Your task to perform on an android device: Search for "dell alienware" on walmart, select the first entry, add it to the cart, then select checkout. Image 0: 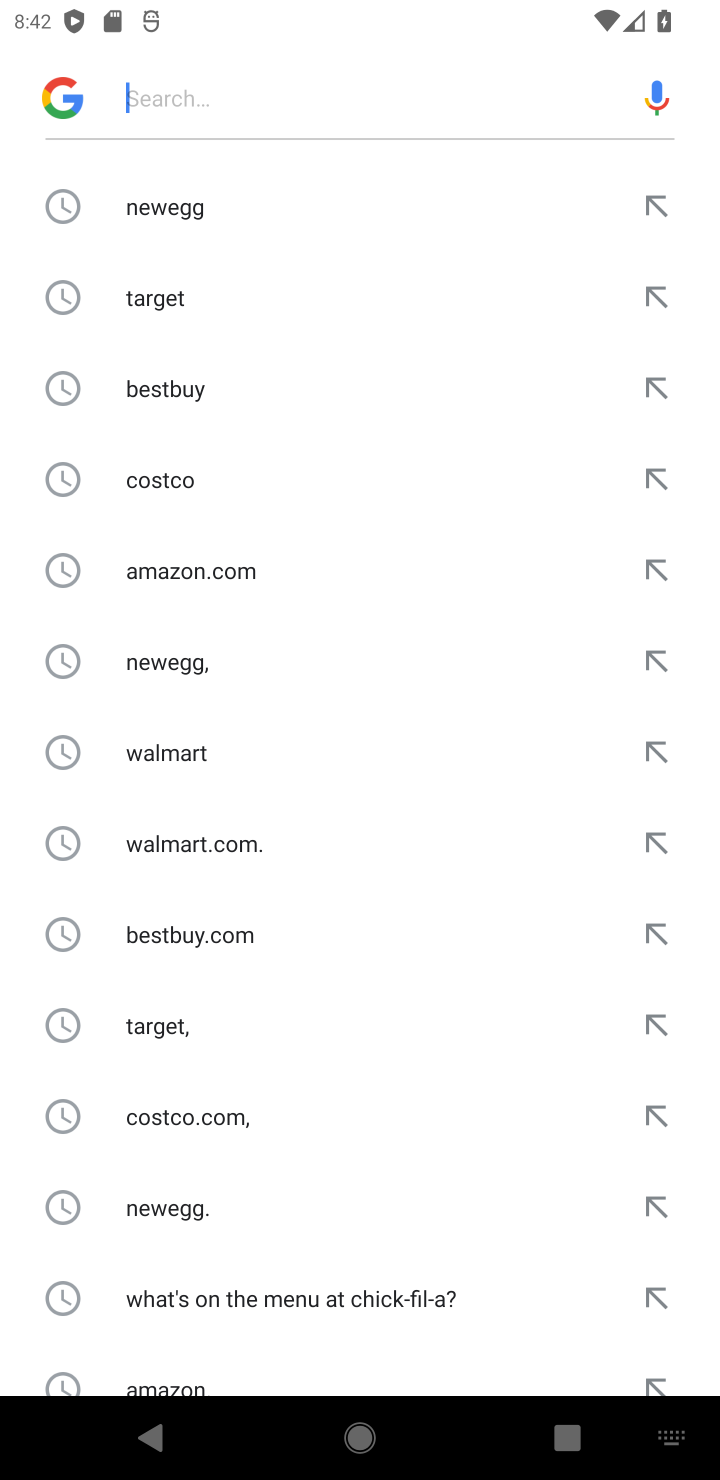
Step 0: press home button
Your task to perform on an android device: Search for "dell alienware" on walmart, select the first entry, add it to the cart, then select checkout. Image 1: 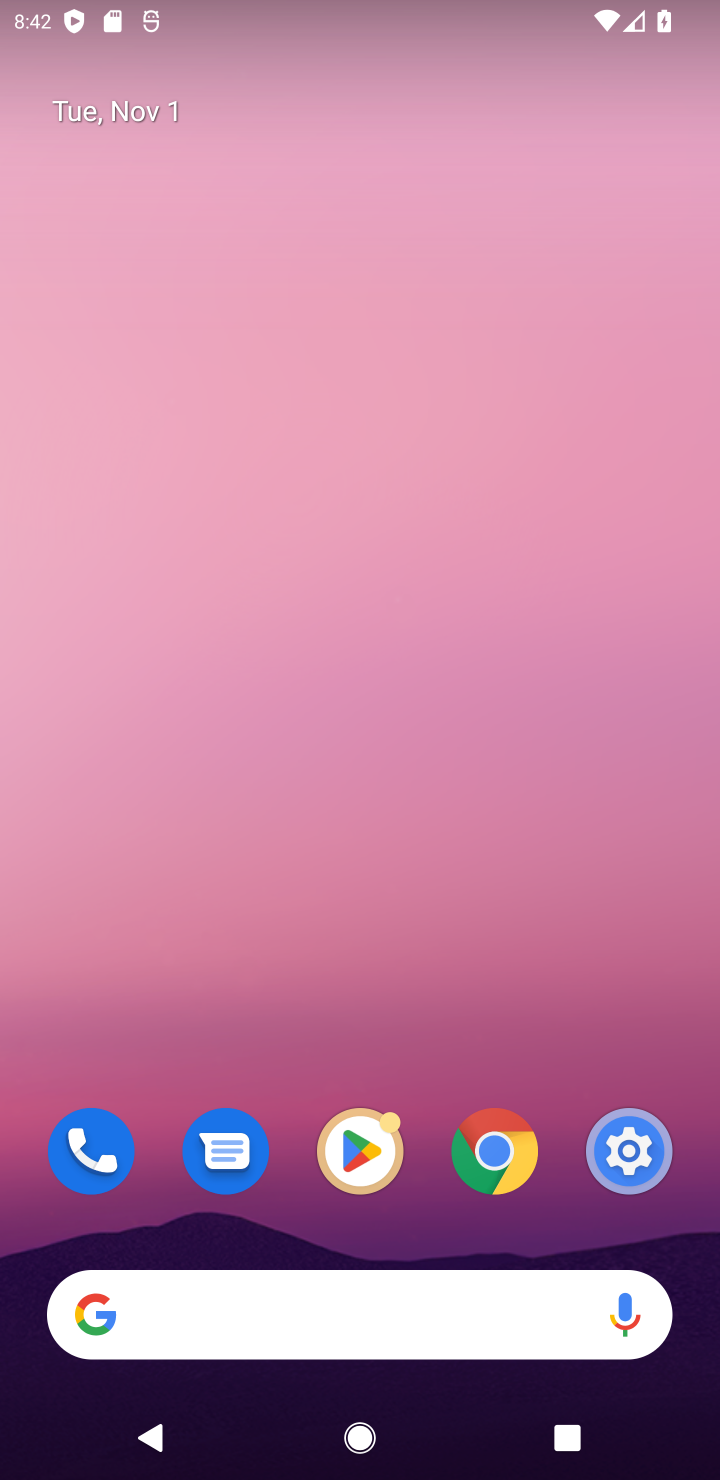
Step 1: click (497, 1150)
Your task to perform on an android device: Search for "dell alienware" on walmart, select the first entry, add it to the cart, then select checkout. Image 2: 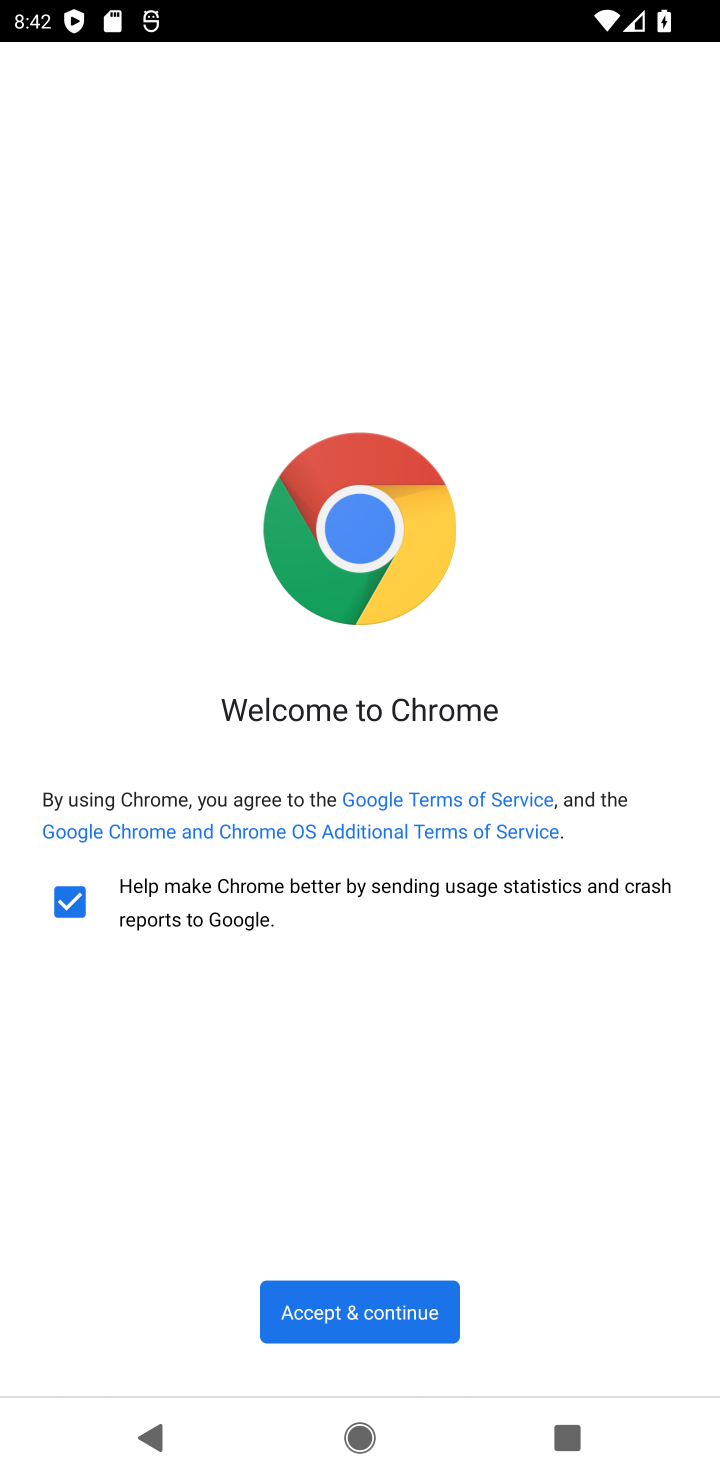
Step 2: click (370, 1327)
Your task to perform on an android device: Search for "dell alienware" on walmart, select the first entry, add it to the cart, then select checkout. Image 3: 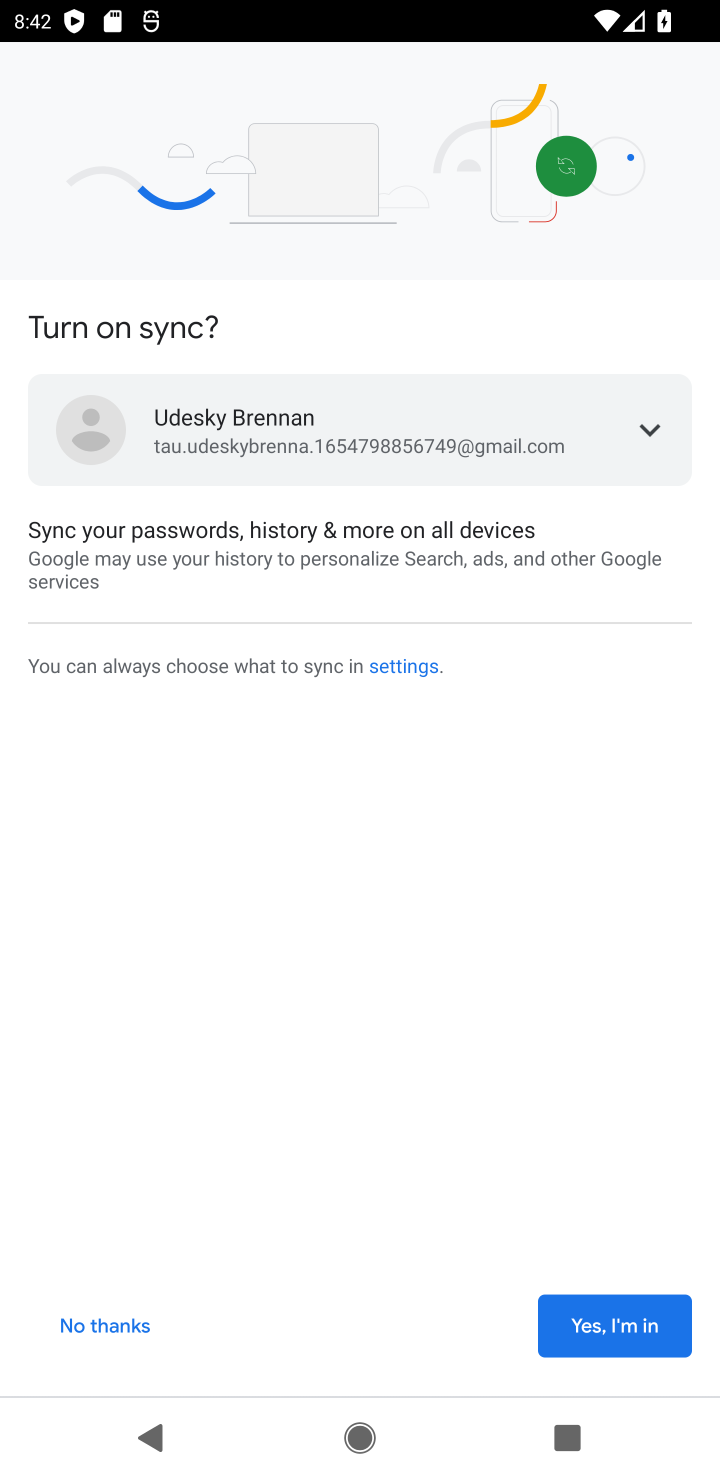
Step 3: click (638, 1305)
Your task to perform on an android device: Search for "dell alienware" on walmart, select the first entry, add it to the cart, then select checkout. Image 4: 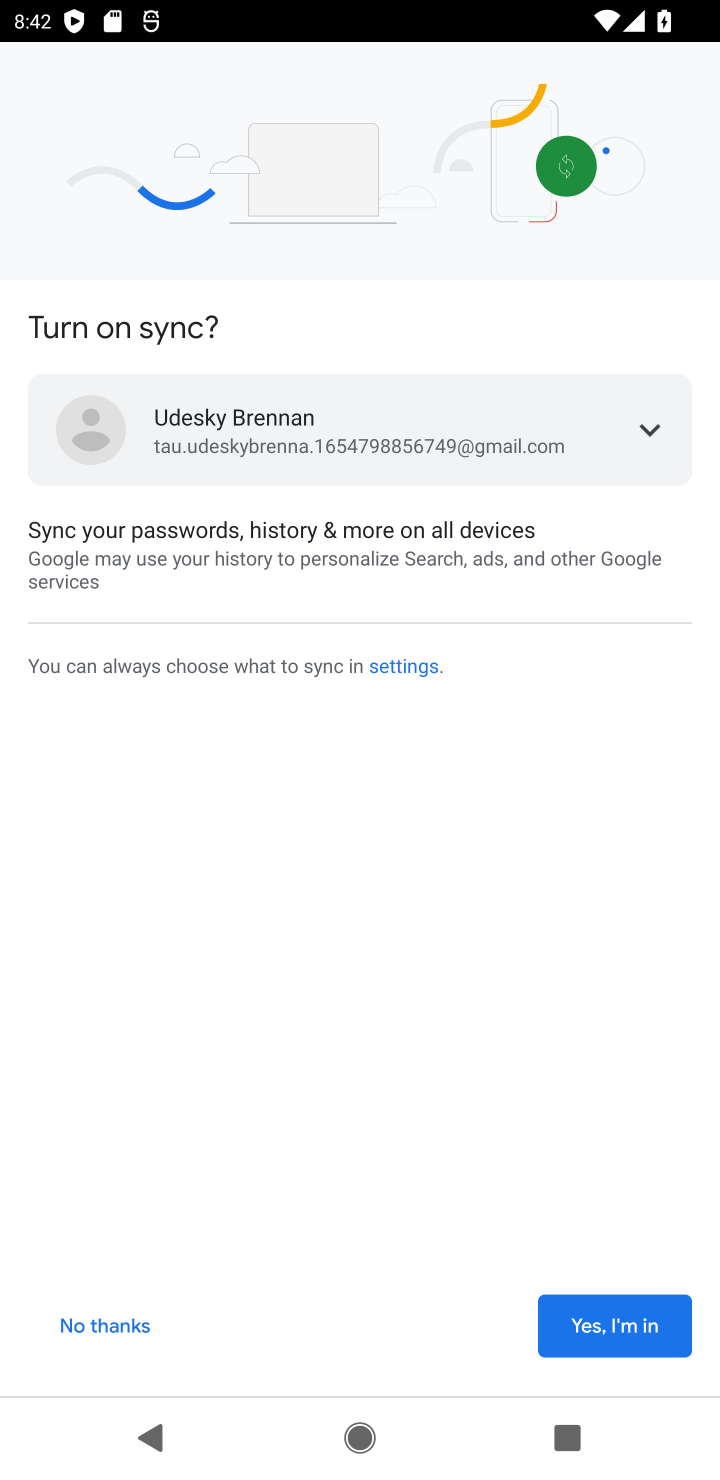
Step 4: click (638, 1305)
Your task to perform on an android device: Search for "dell alienware" on walmart, select the first entry, add it to the cart, then select checkout. Image 5: 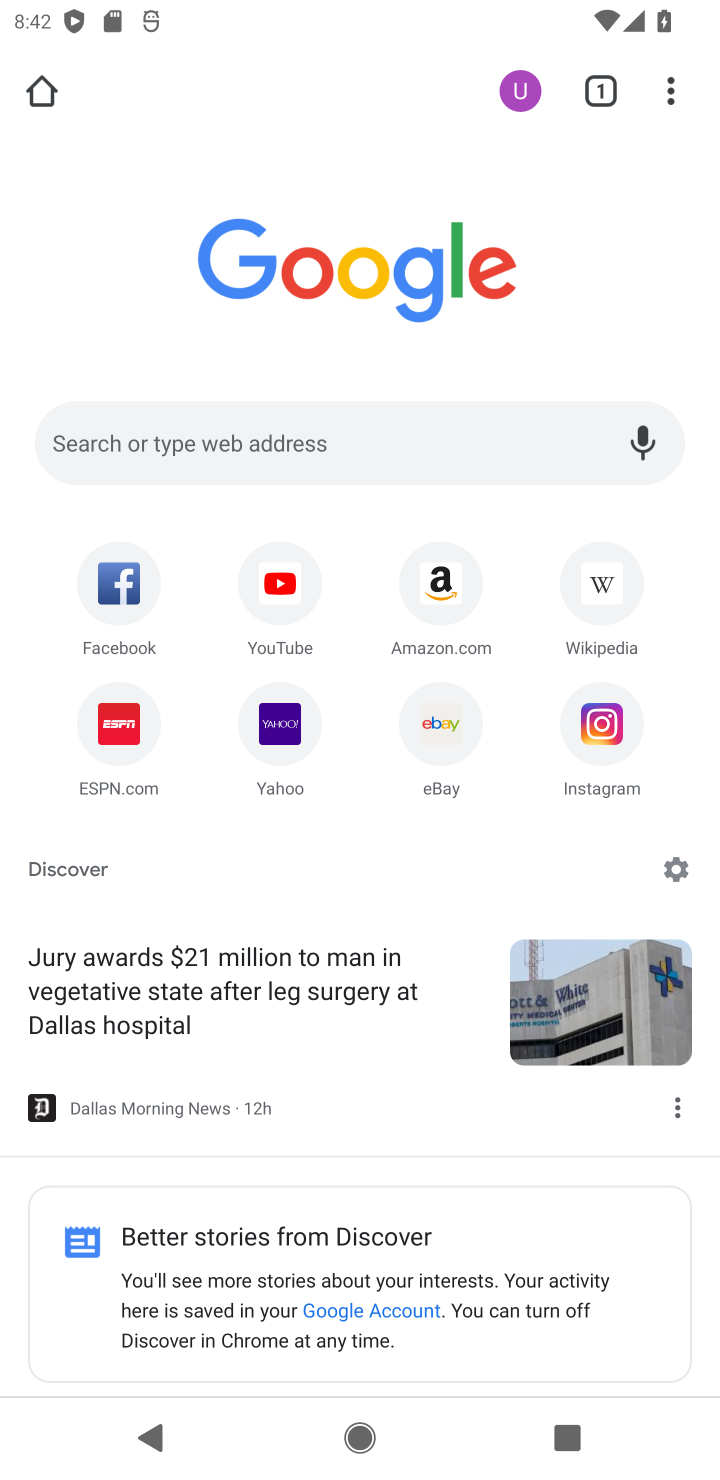
Step 5: click (441, 442)
Your task to perform on an android device: Search for "dell alienware" on walmart, select the first entry, add it to the cart, then select checkout. Image 6: 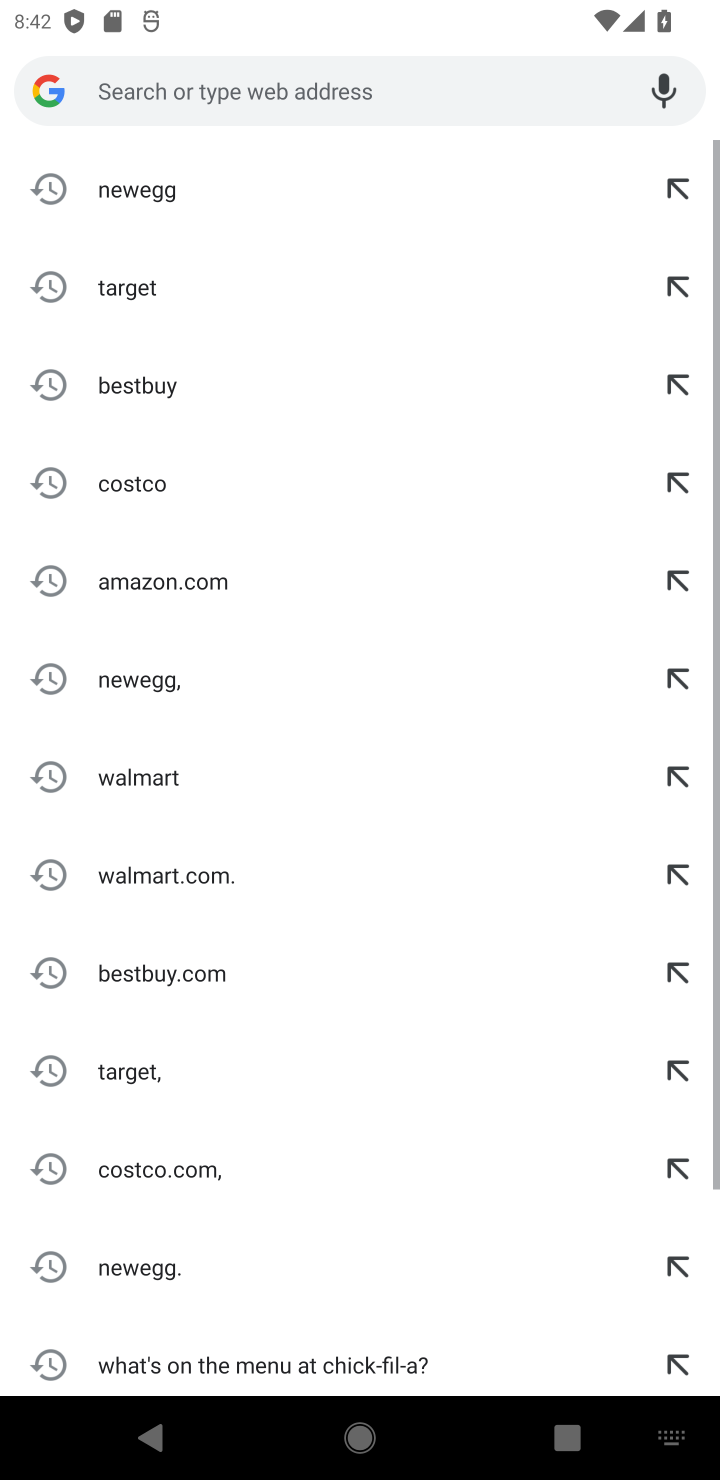
Step 6: type "walmart"
Your task to perform on an android device: Search for "dell alienware" on walmart, select the first entry, add it to the cart, then select checkout. Image 7: 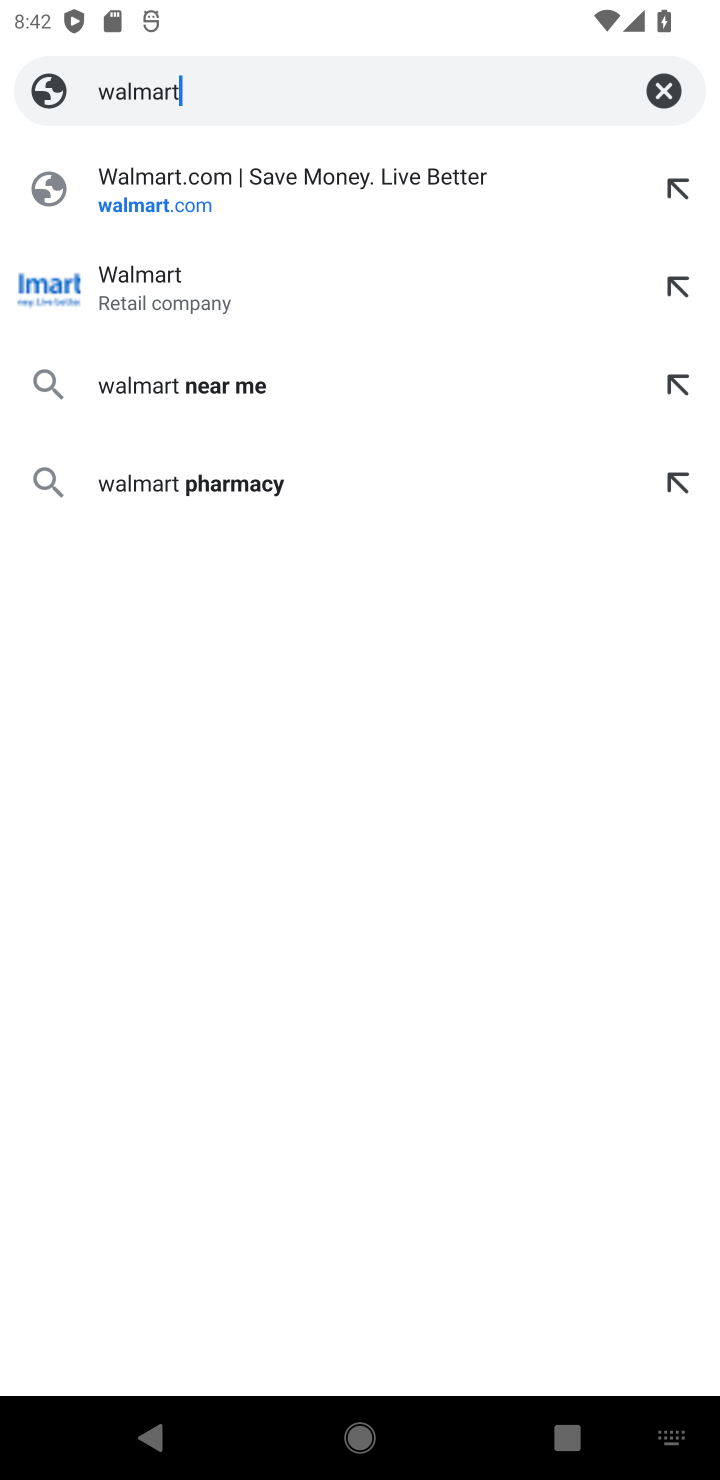
Step 7: click (205, 193)
Your task to perform on an android device: Search for "dell alienware" on walmart, select the first entry, add it to the cart, then select checkout. Image 8: 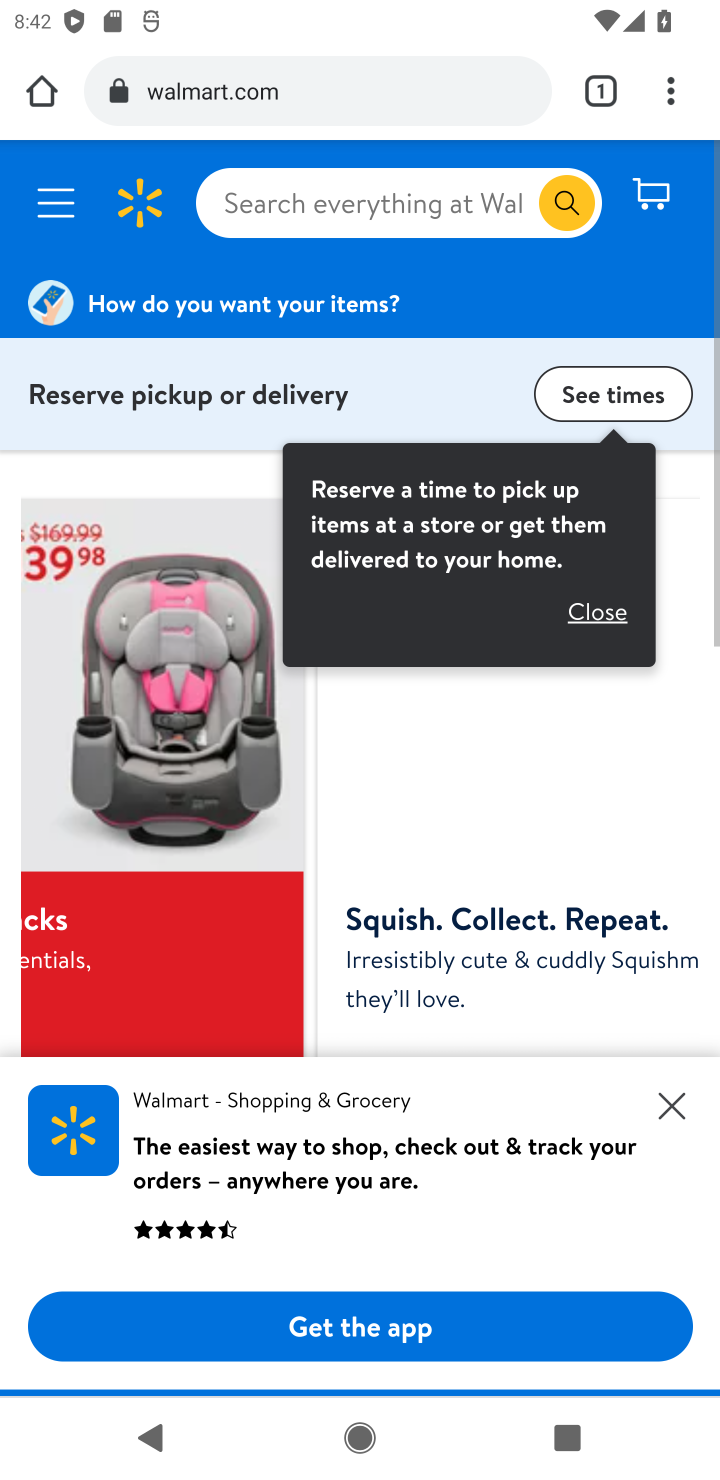
Step 8: click (399, 192)
Your task to perform on an android device: Search for "dell alienware" on walmart, select the first entry, add it to the cart, then select checkout. Image 9: 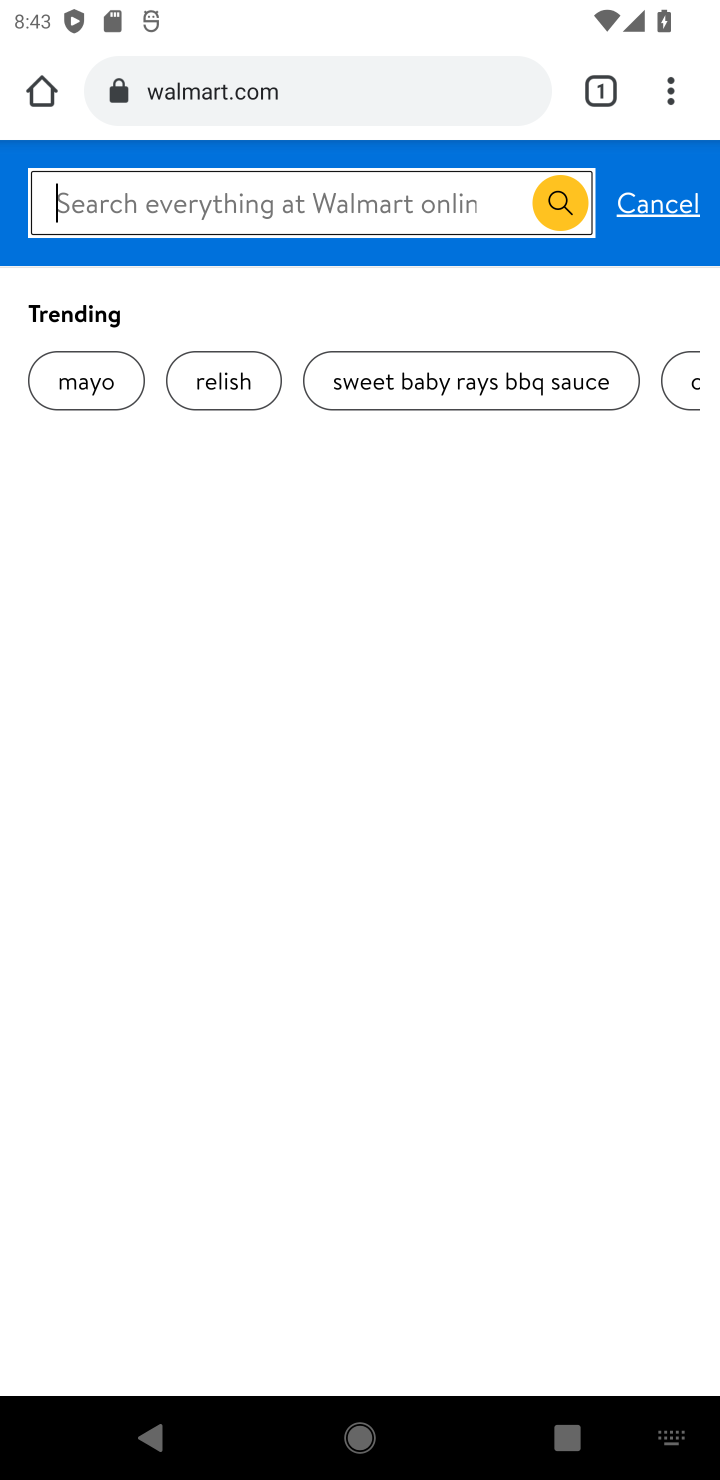
Step 9: type "dell alienware"
Your task to perform on an android device: Search for "dell alienware" on walmart, select the first entry, add it to the cart, then select checkout. Image 10: 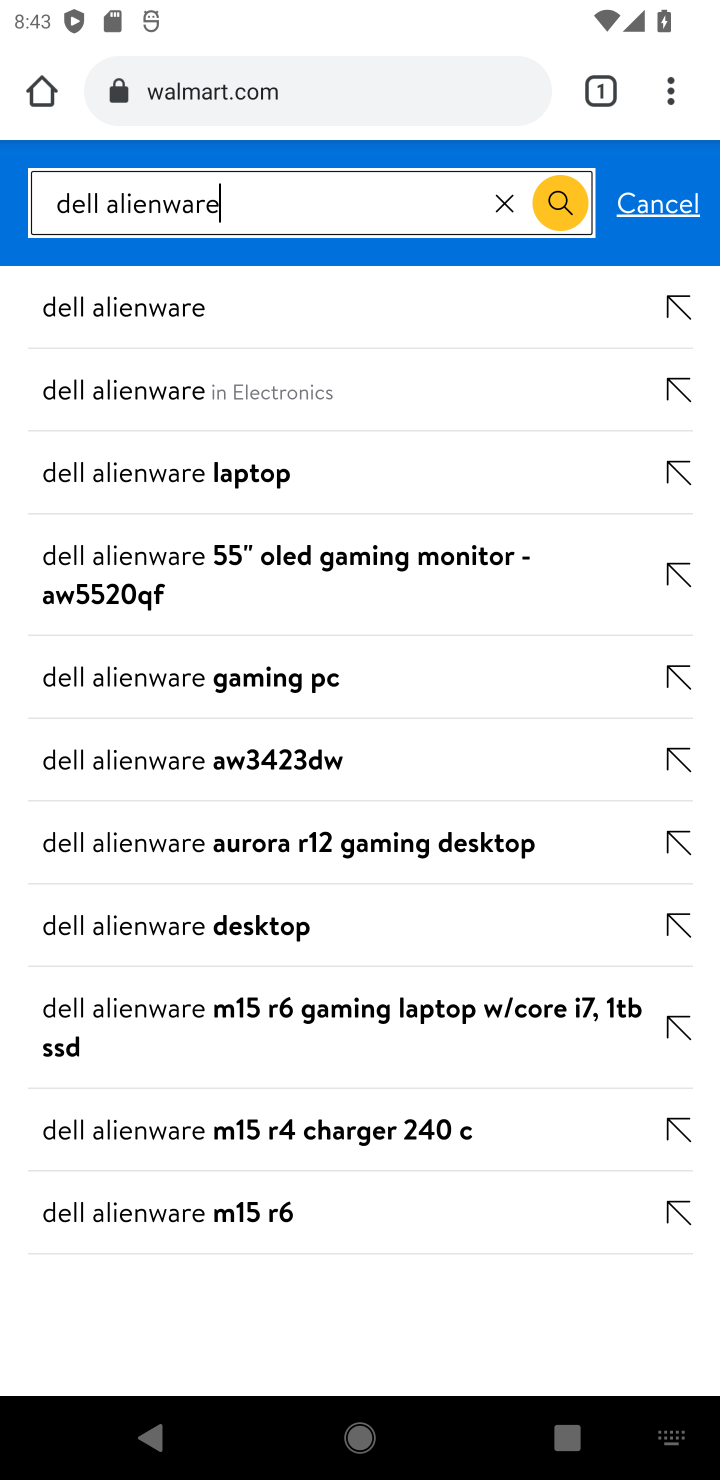
Step 10: click (178, 377)
Your task to perform on an android device: Search for "dell alienware" on walmart, select the first entry, add it to the cart, then select checkout. Image 11: 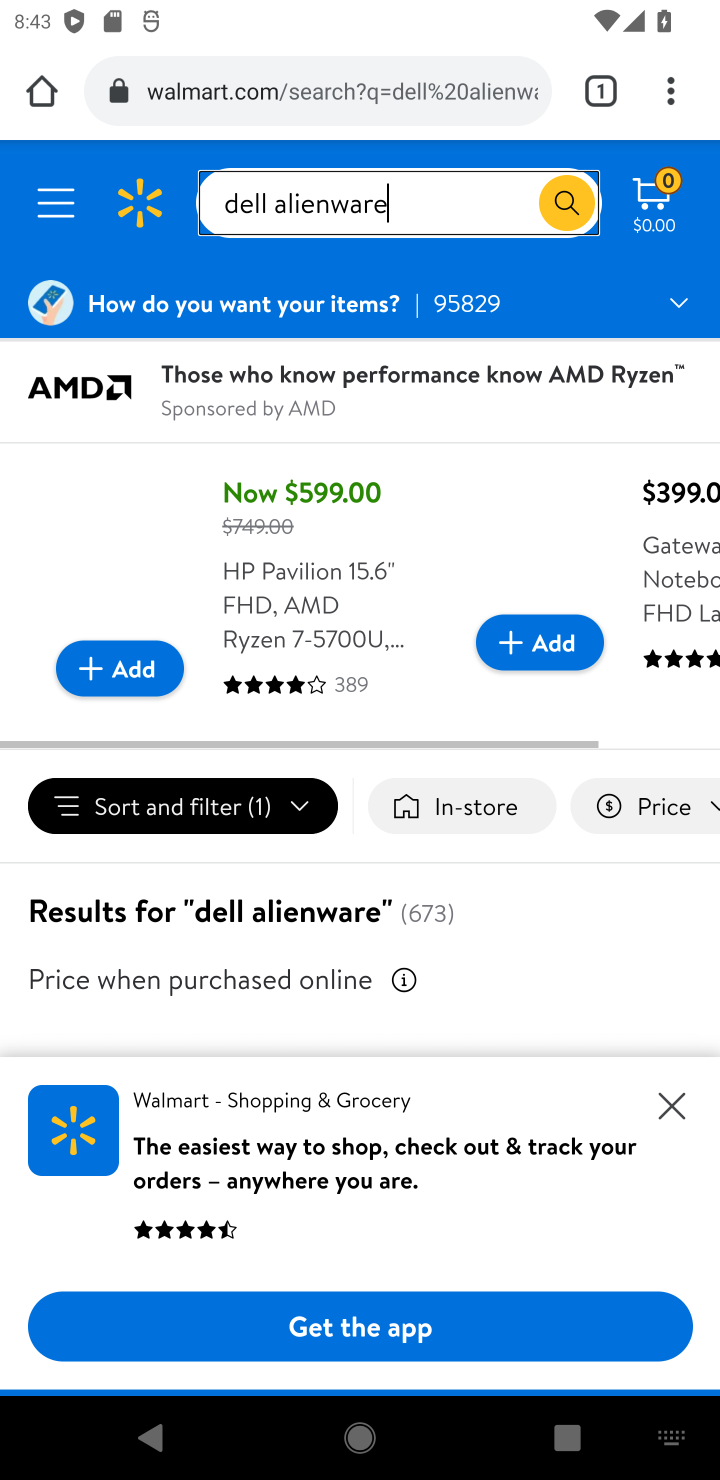
Step 11: click (666, 1101)
Your task to perform on an android device: Search for "dell alienware" on walmart, select the first entry, add it to the cart, then select checkout. Image 12: 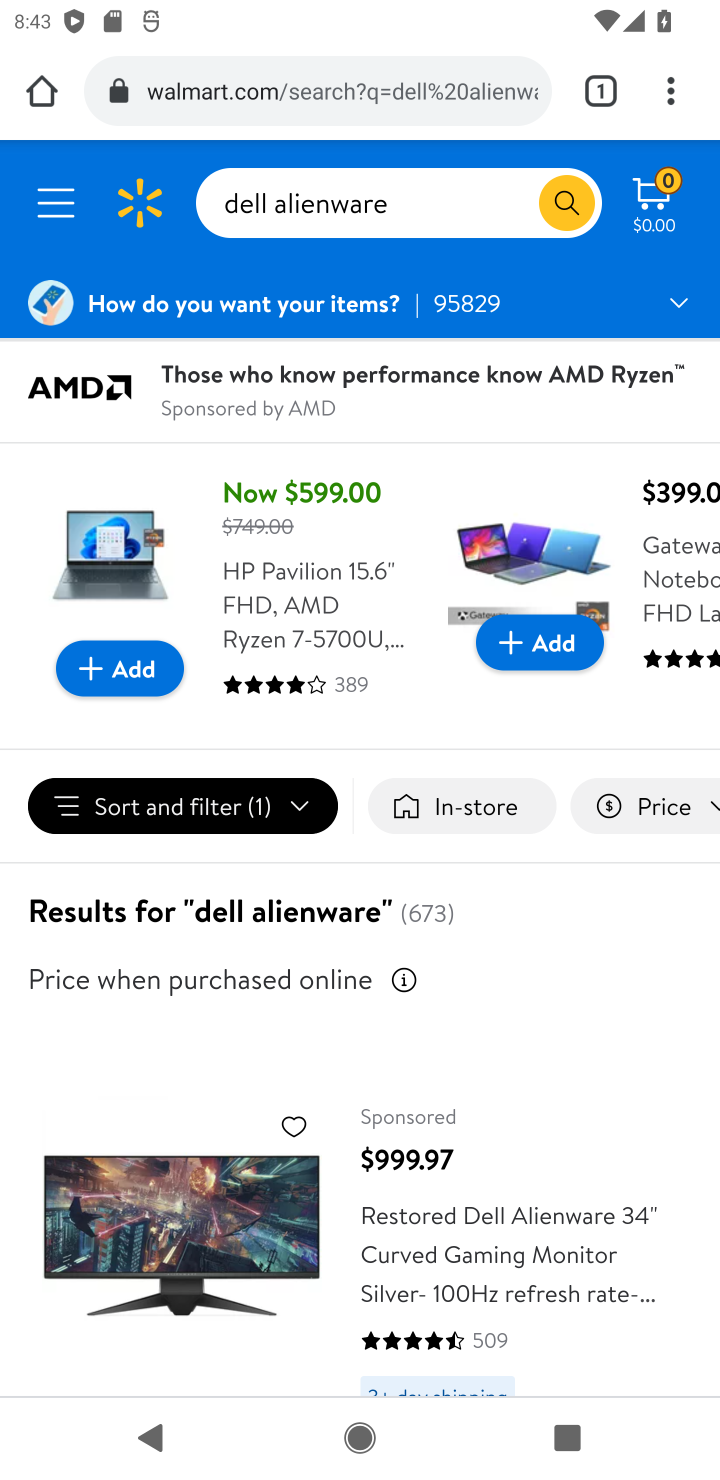
Step 12: drag from (567, 1180) to (506, 600)
Your task to perform on an android device: Search for "dell alienware" on walmart, select the first entry, add it to the cart, then select checkout. Image 13: 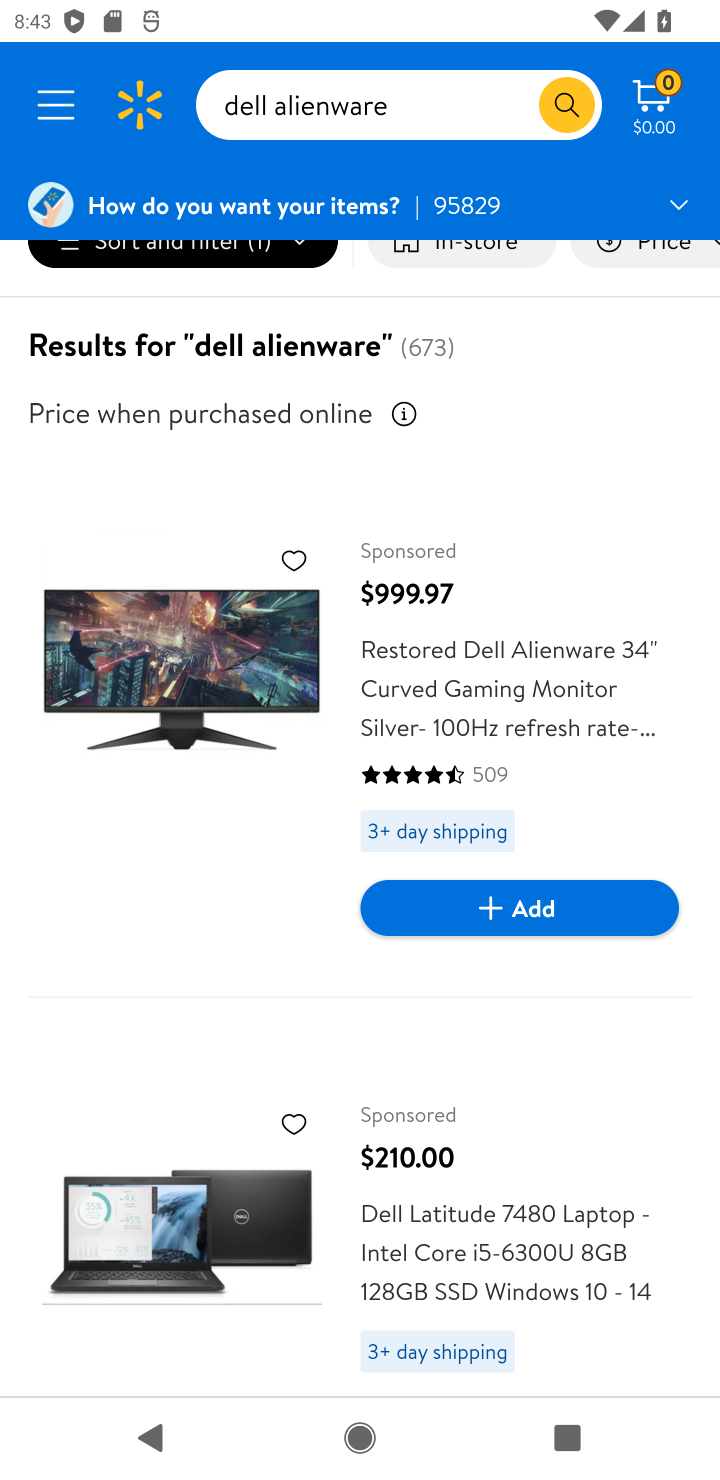
Step 13: click (536, 895)
Your task to perform on an android device: Search for "dell alienware" on walmart, select the first entry, add it to the cart, then select checkout. Image 14: 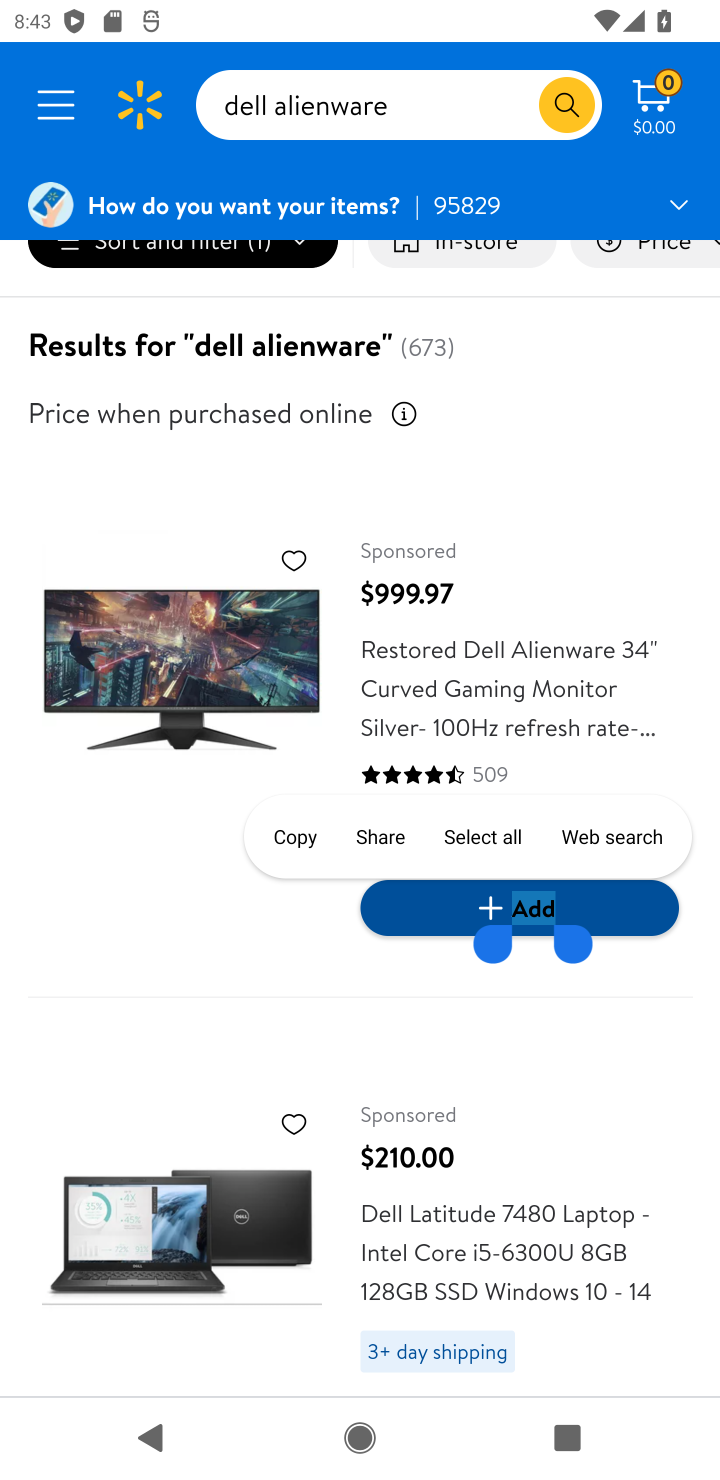
Step 14: click (512, 913)
Your task to perform on an android device: Search for "dell alienware" on walmart, select the first entry, add it to the cart, then select checkout. Image 15: 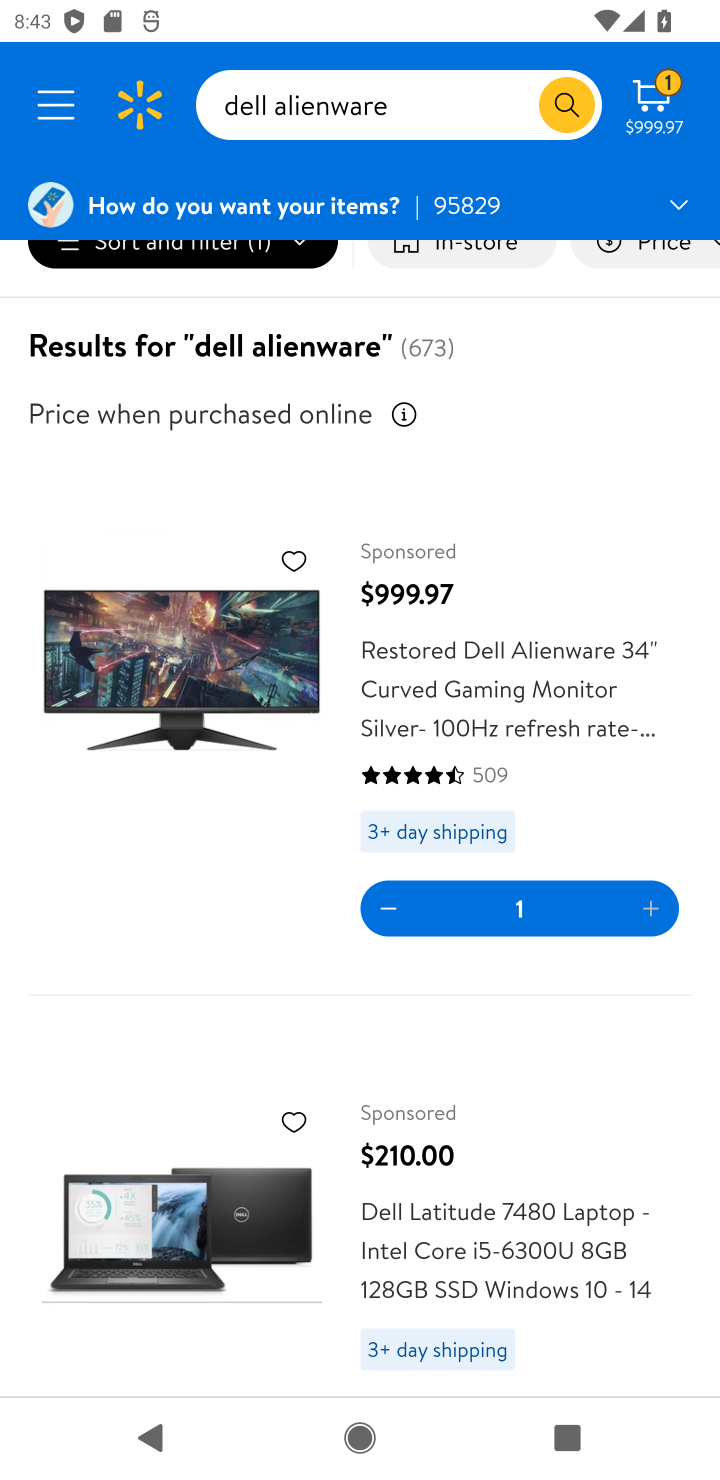
Step 15: task complete